Your task to perform on an android device: Open CNN.com Image 0: 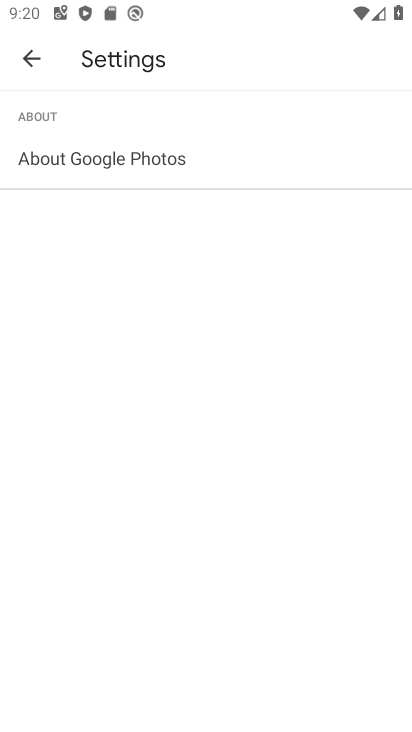
Step 0: press home button
Your task to perform on an android device: Open CNN.com Image 1: 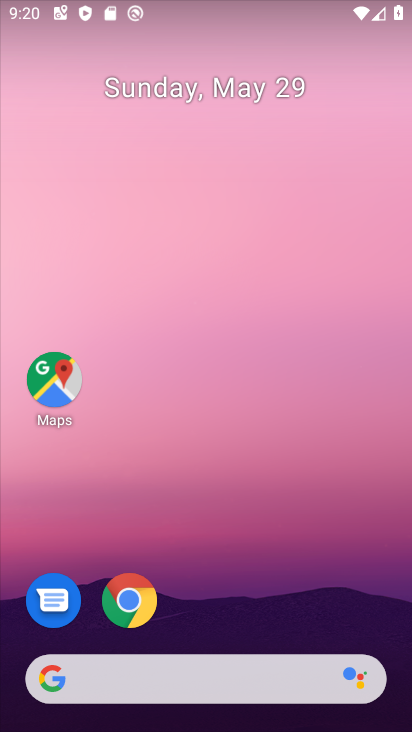
Step 1: click (121, 599)
Your task to perform on an android device: Open CNN.com Image 2: 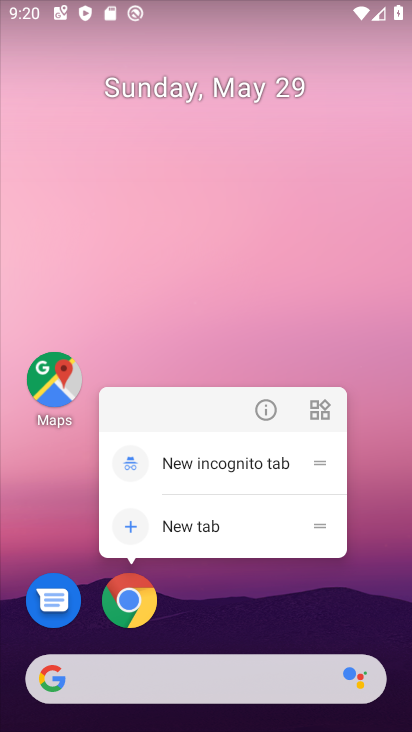
Step 2: click (118, 599)
Your task to perform on an android device: Open CNN.com Image 3: 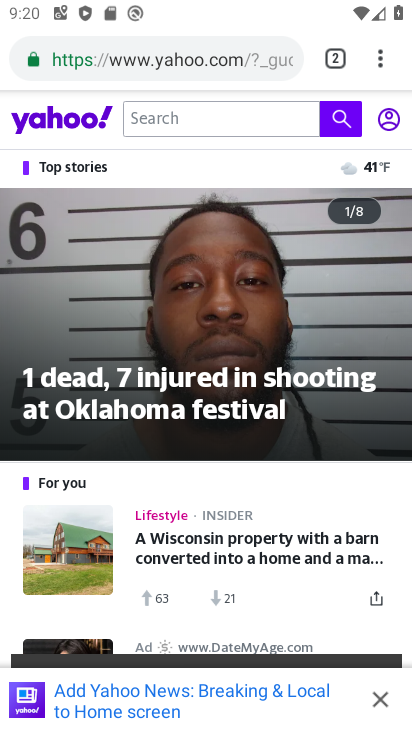
Step 3: click (378, 66)
Your task to perform on an android device: Open CNN.com Image 4: 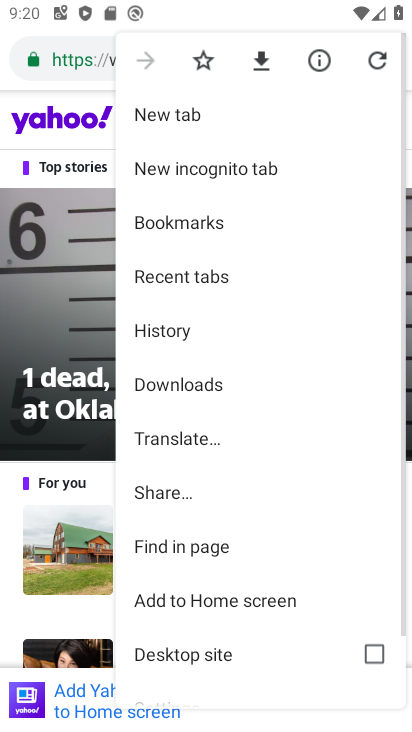
Step 4: click (182, 114)
Your task to perform on an android device: Open CNN.com Image 5: 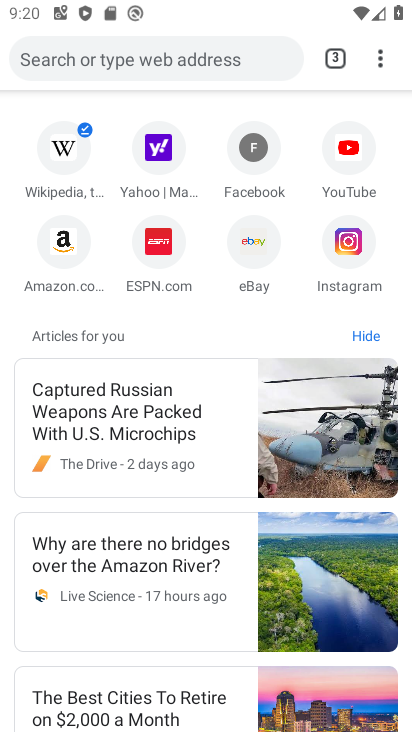
Step 5: click (143, 59)
Your task to perform on an android device: Open CNN.com Image 6: 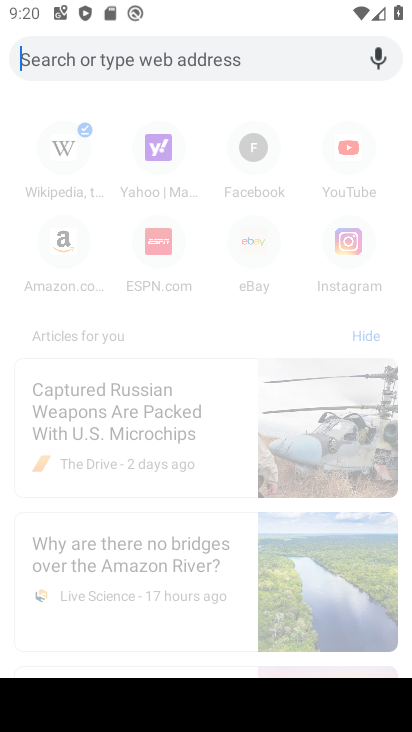
Step 6: type "CNN.com"
Your task to perform on an android device: Open CNN.com Image 7: 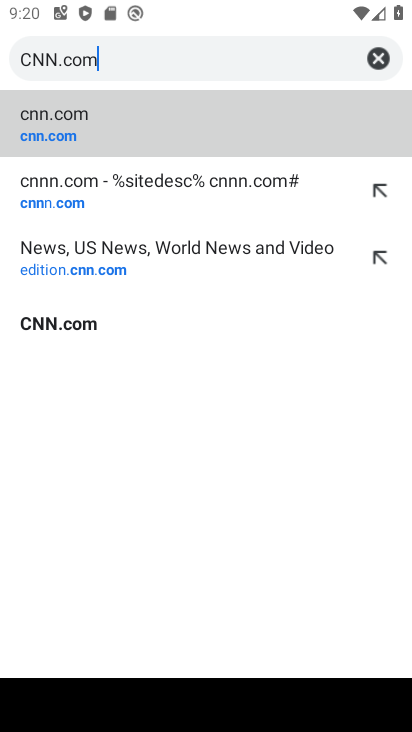
Step 7: type ""
Your task to perform on an android device: Open CNN.com Image 8: 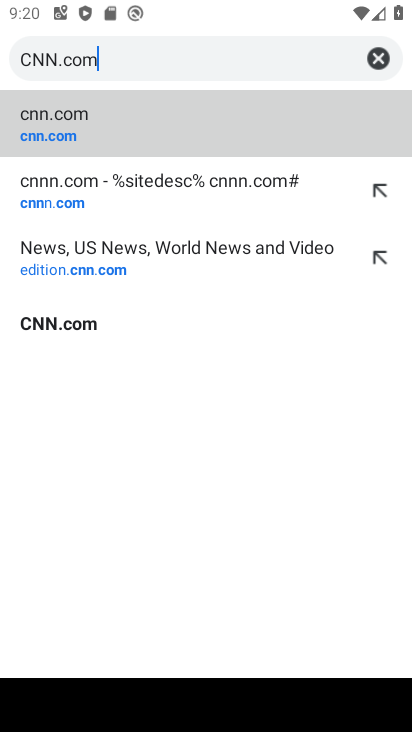
Step 8: click (37, 114)
Your task to perform on an android device: Open CNN.com Image 9: 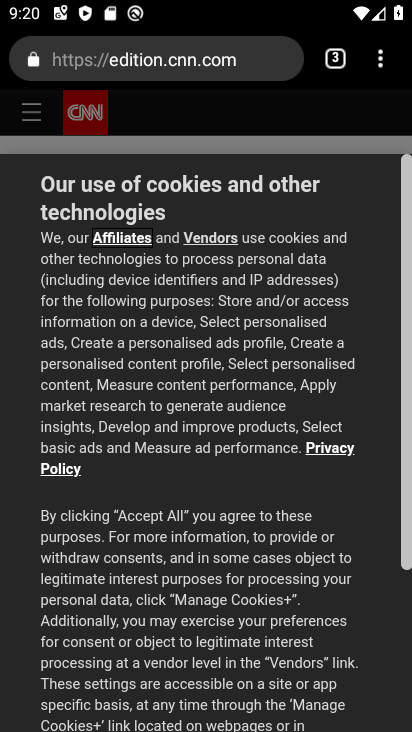
Step 9: task complete